Your task to perform on an android device: Do I have any events tomorrow? Image 0: 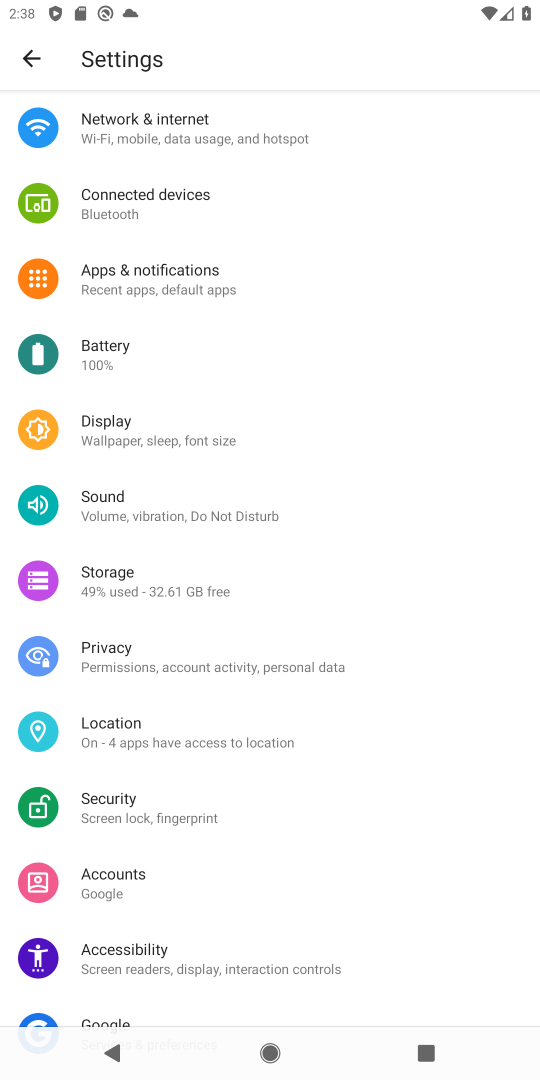
Step 0: press home button
Your task to perform on an android device: Do I have any events tomorrow? Image 1: 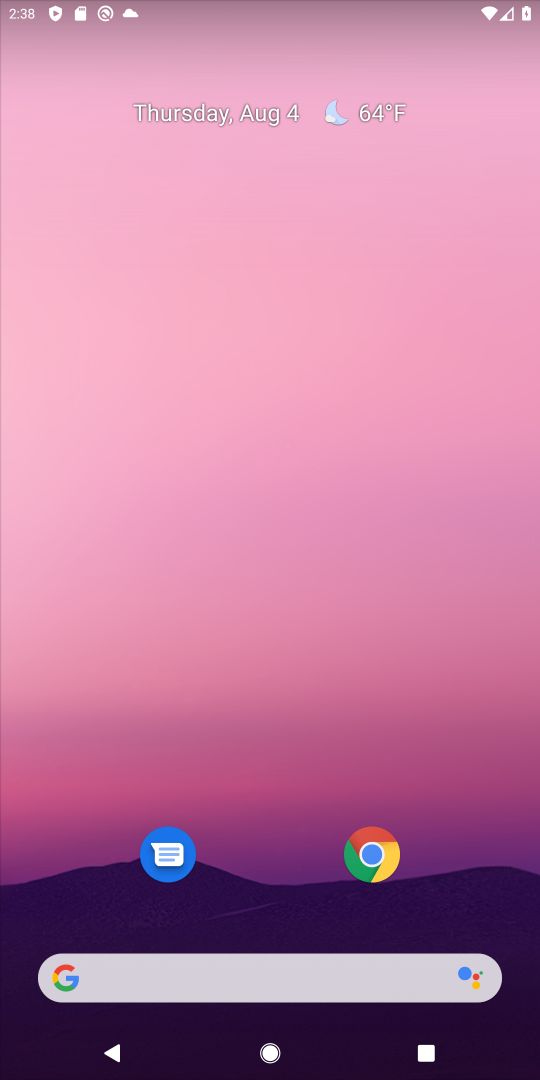
Step 1: drag from (266, 758) to (356, 224)
Your task to perform on an android device: Do I have any events tomorrow? Image 2: 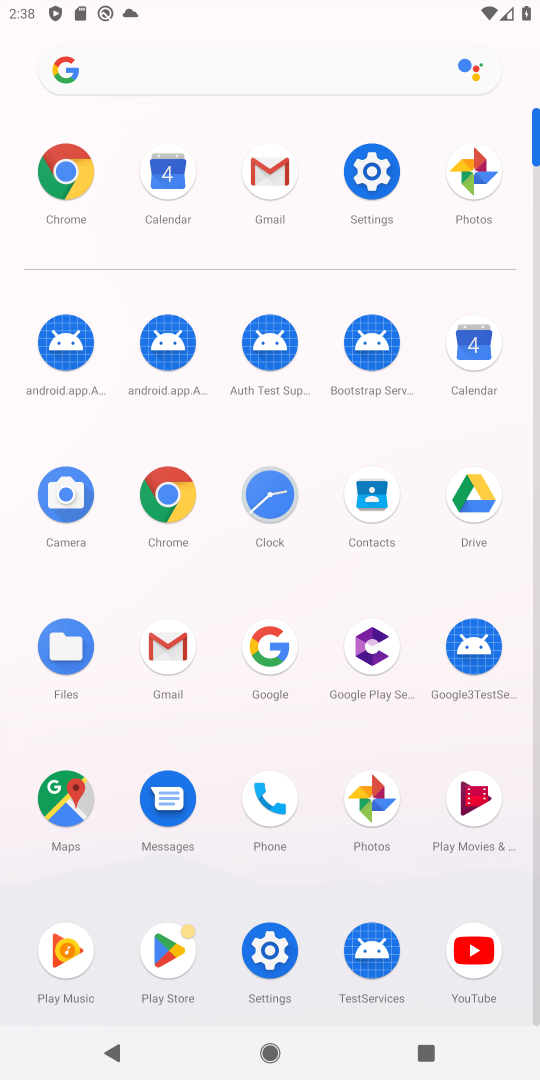
Step 2: click (468, 361)
Your task to perform on an android device: Do I have any events tomorrow? Image 3: 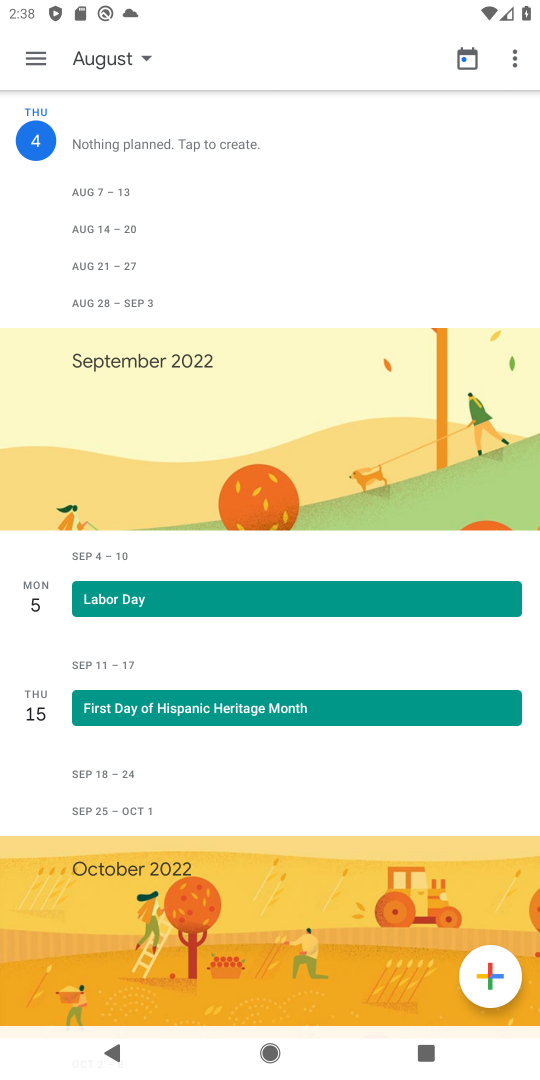
Step 3: task complete